Your task to perform on an android device: Open Google Image 0: 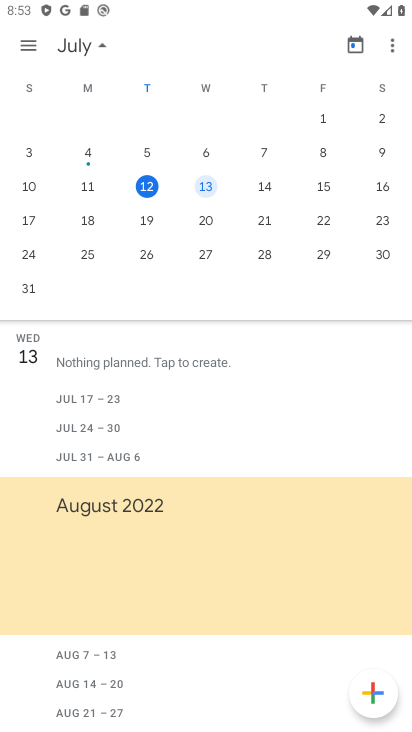
Step 0: task complete